Your task to perform on an android device: install app "Spotify" Image 0: 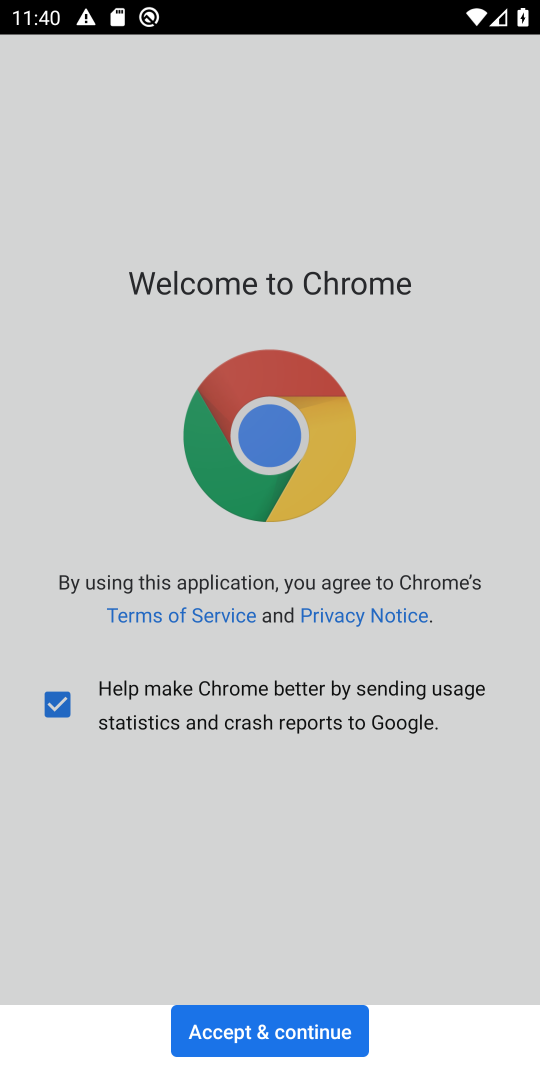
Step 0: press home button
Your task to perform on an android device: install app "Spotify" Image 1: 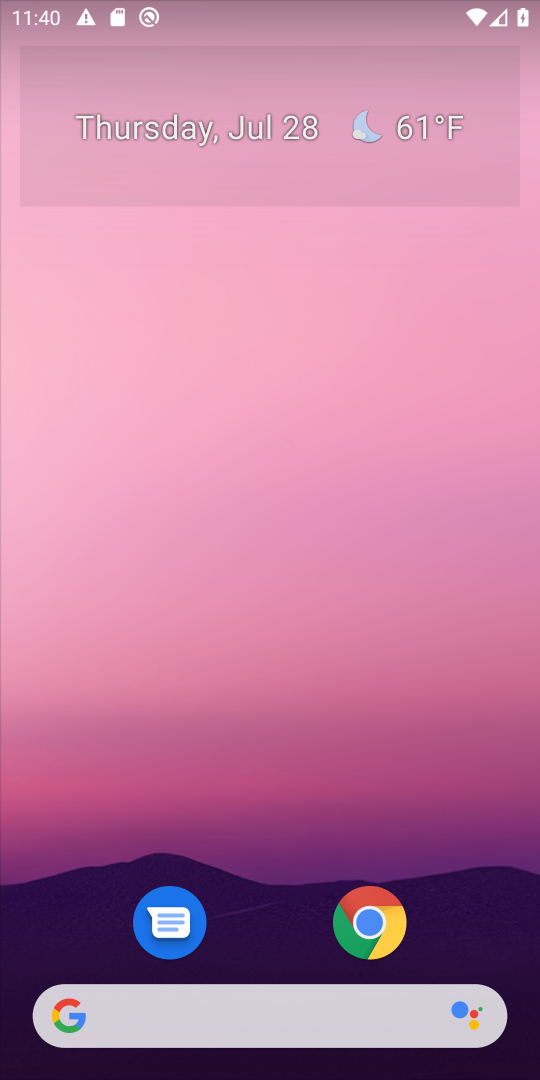
Step 1: drag from (407, 752) to (362, 121)
Your task to perform on an android device: install app "Spotify" Image 2: 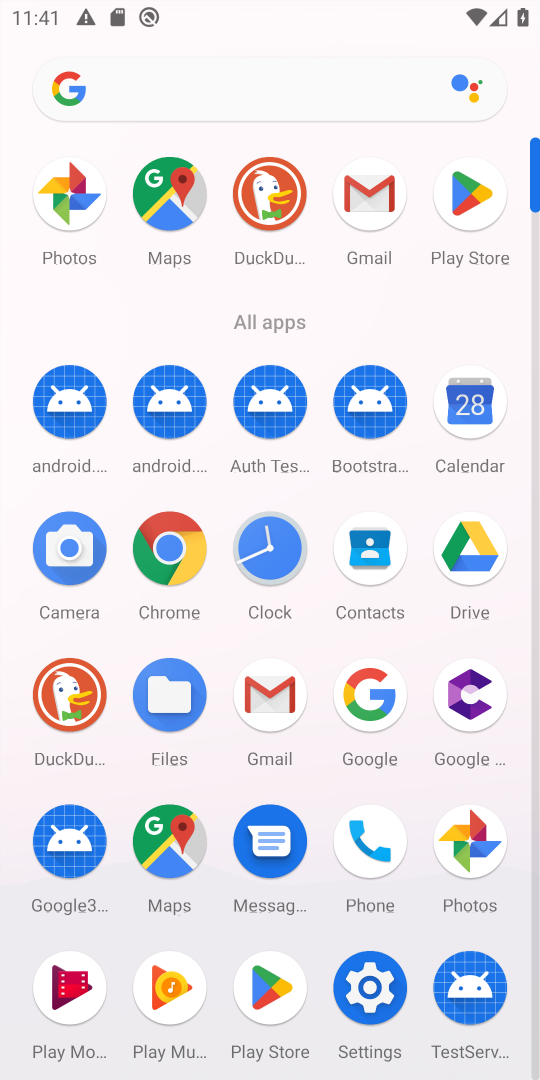
Step 2: click (463, 199)
Your task to perform on an android device: install app "Spotify" Image 3: 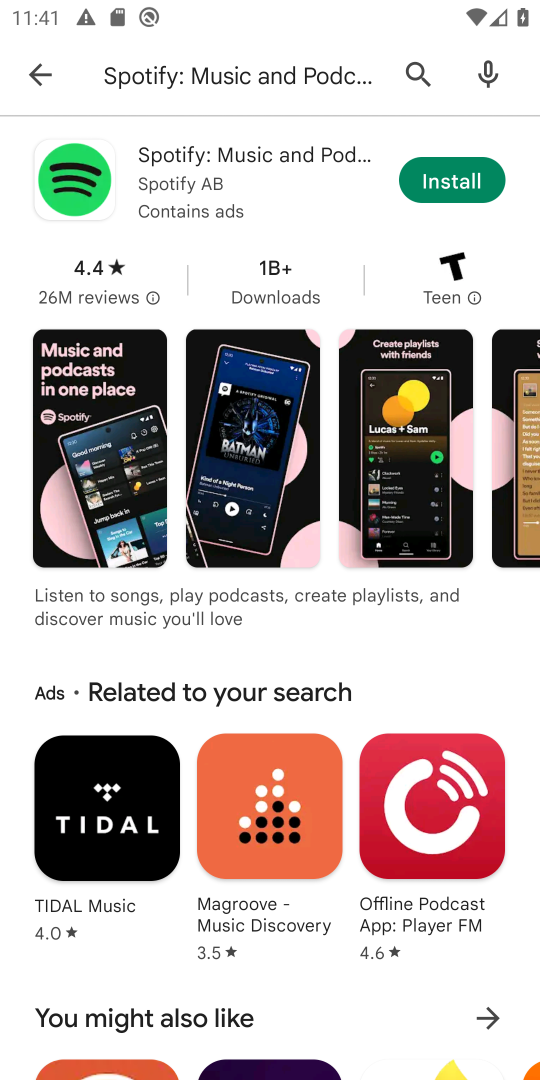
Step 3: click (269, 77)
Your task to perform on an android device: install app "Spotify" Image 4: 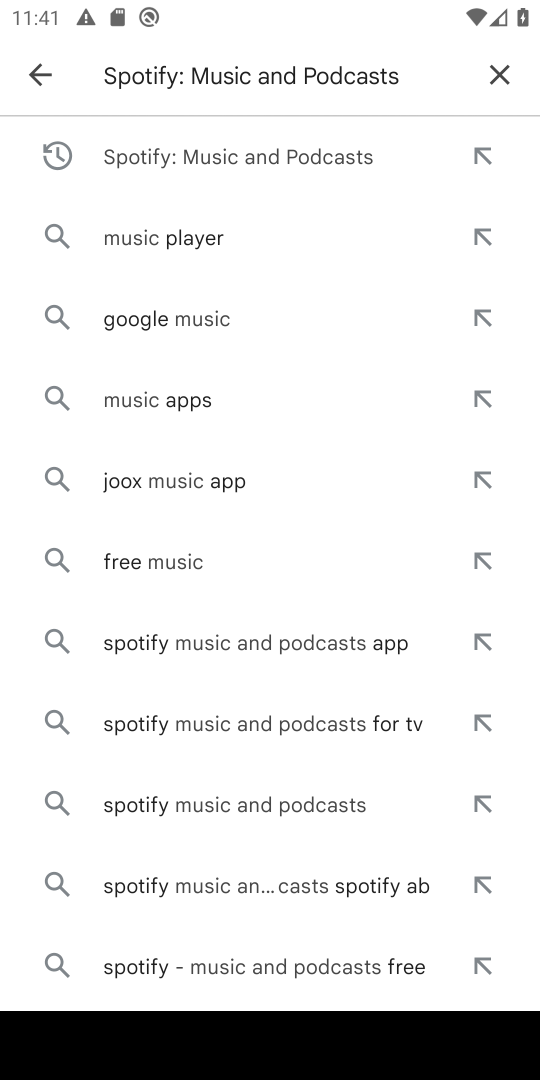
Step 4: click (494, 88)
Your task to perform on an android device: install app "Spotify" Image 5: 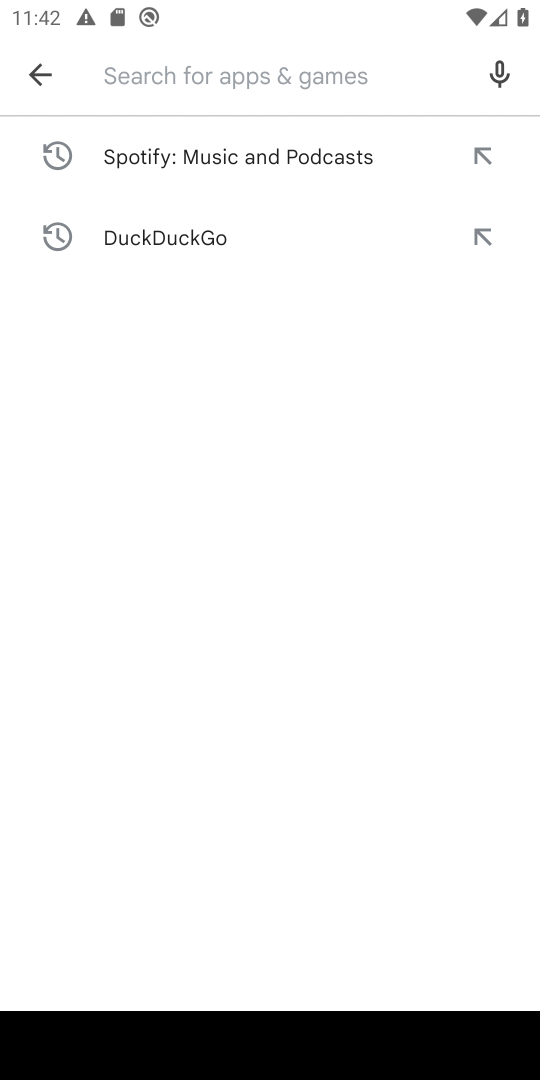
Step 5: press home button
Your task to perform on an android device: install app "Spotify" Image 6: 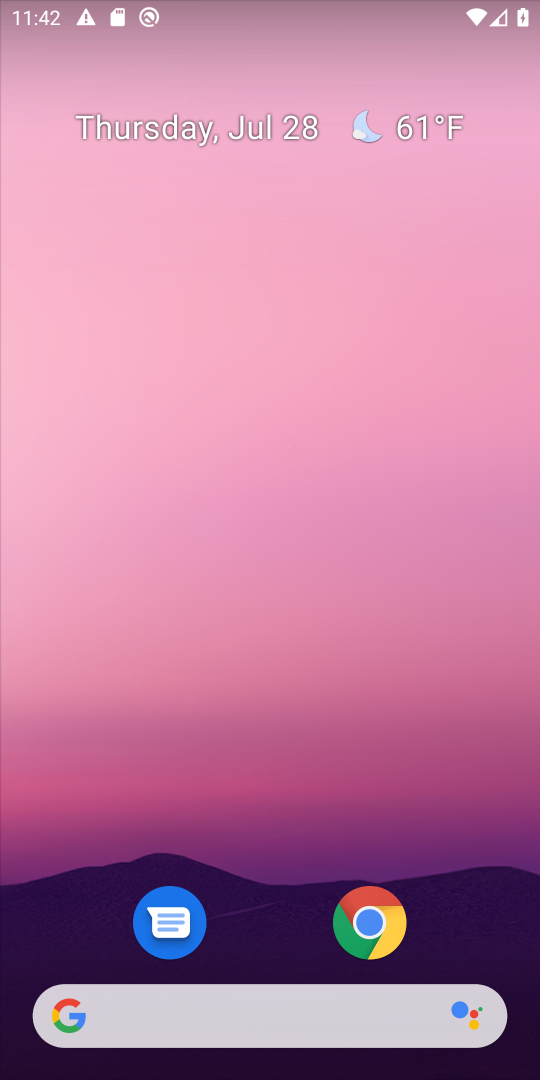
Step 6: drag from (465, 758) to (461, 0)
Your task to perform on an android device: install app "Spotify" Image 7: 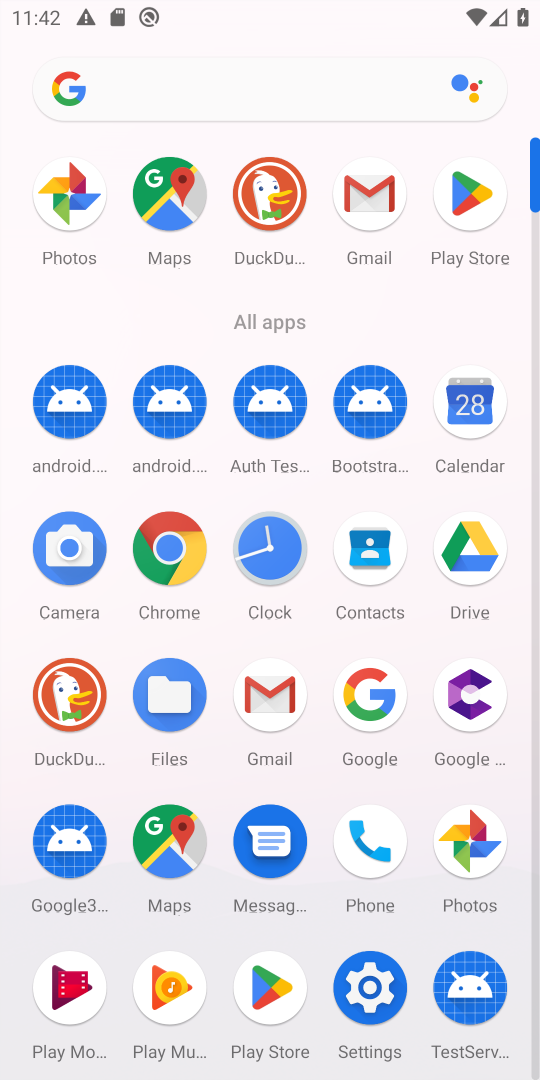
Step 7: click (467, 184)
Your task to perform on an android device: install app "Spotify" Image 8: 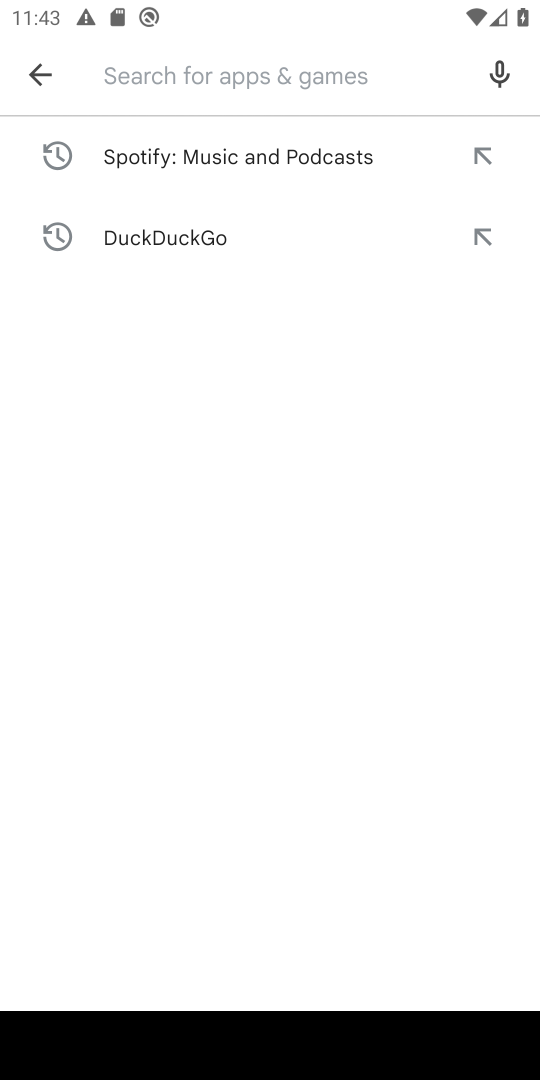
Step 8: type "Spotify"
Your task to perform on an android device: install app "Spotify" Image 9: 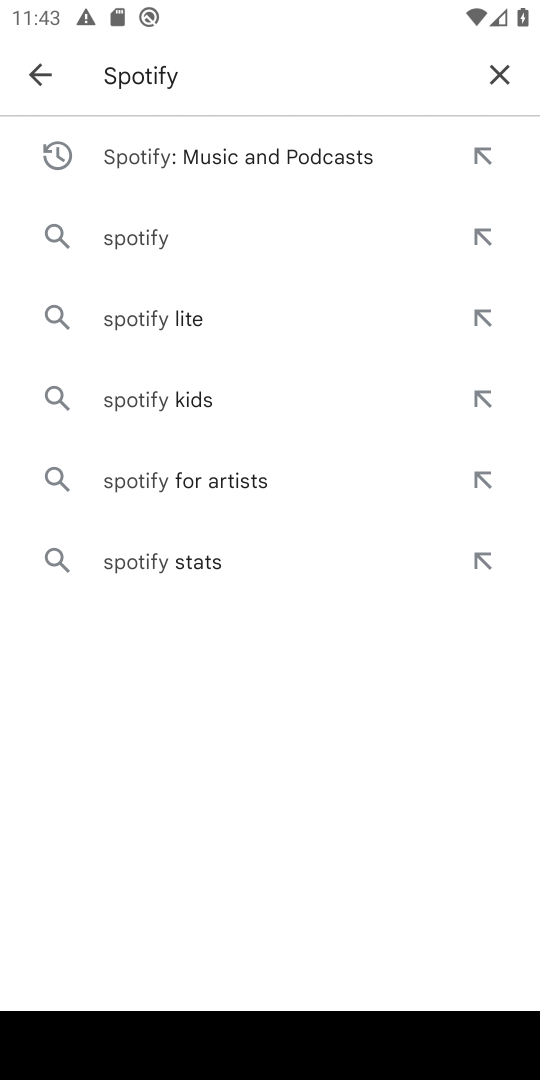
Step 9: click (299, 160)
Your task to perform on an android device: install app "Spotify" Image 10: 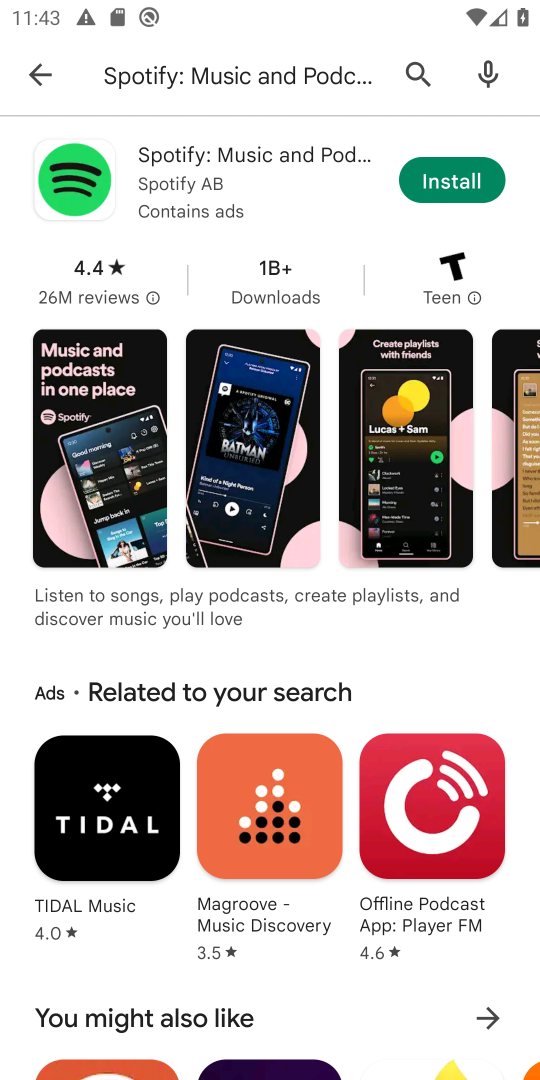
Step 10: click (437, 188)
Your task to perform on an android device: install app "Spotify" Image 11: 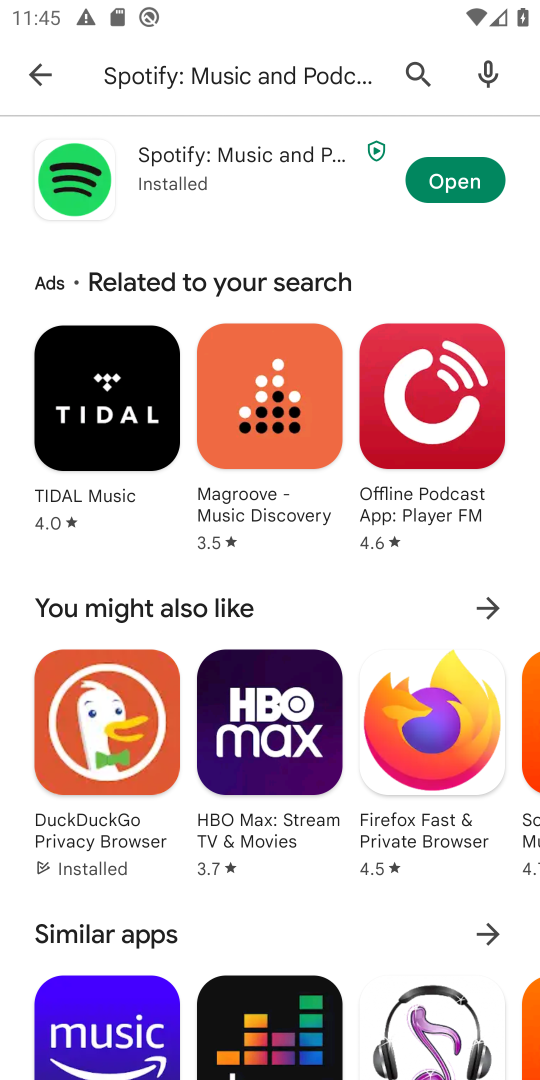
Step 11: task complete